Your task to perform on an android device: empty trash in google photos Image 0: 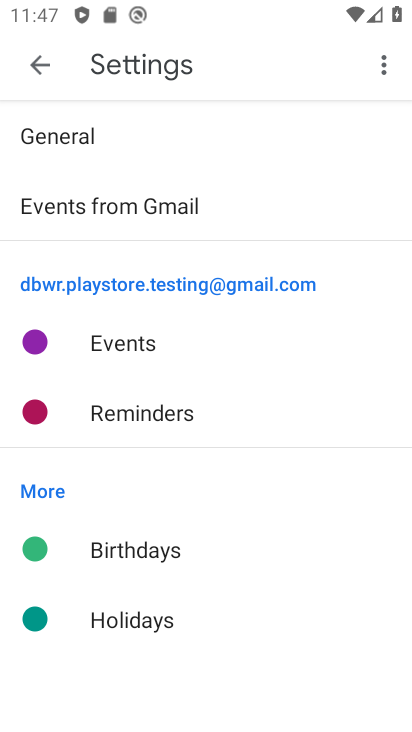
Step 0: press home button
Your task to perform on an android device: empty trash in google photos Image 1: 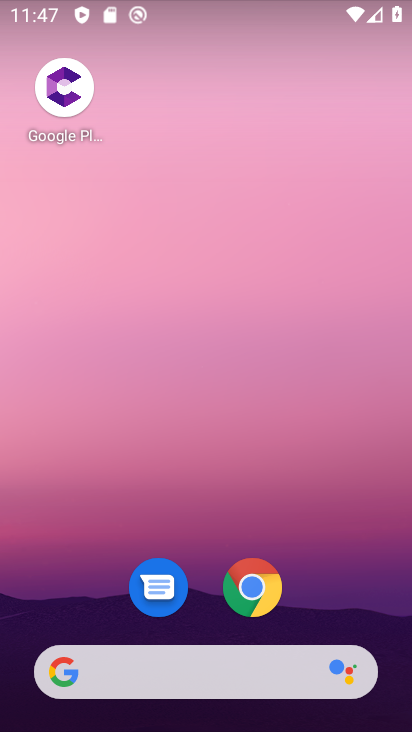
Step 1: drag from (104, 730) to (136, 32)
Your task to perform on an android device: empty trash in google photos Image 2: 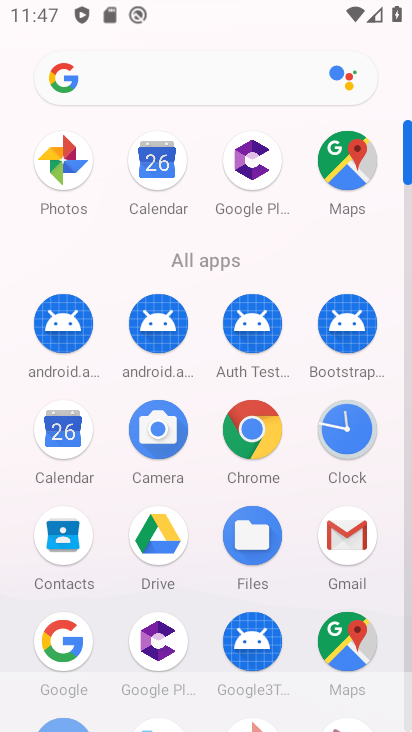
Step 2: click (56, 162)
Your task to perform on an android device: empty trash in google photos Image 3: 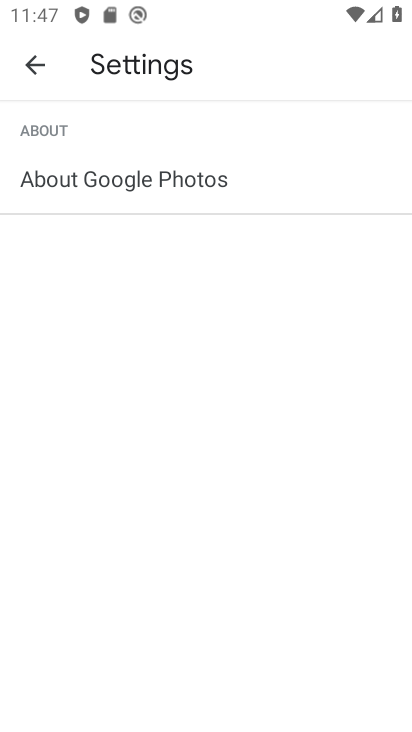
Step 3: click (30, 67)
Your task to perform on an android device: empty trash in google photos Image 4: 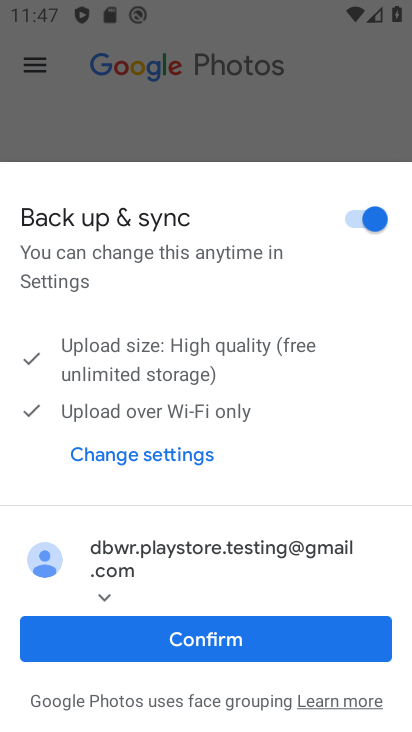
Step 4: click (226, 646)
Your task to perform on an android device: empty trash in google photos Image 5: 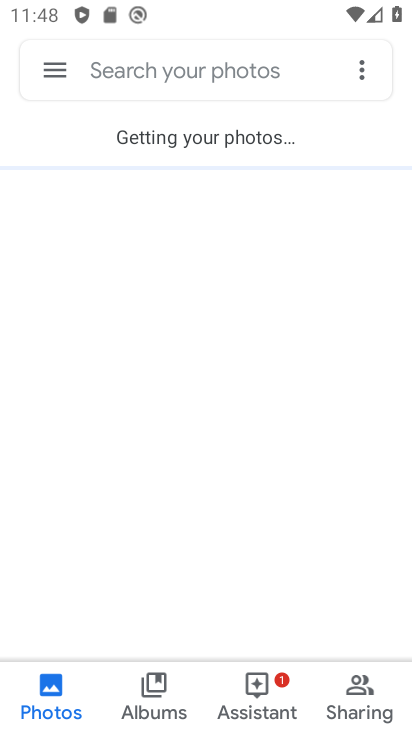
Step 5: click (59, 64)
Your task to perform on an android device: empty trash in google photos Image 6: 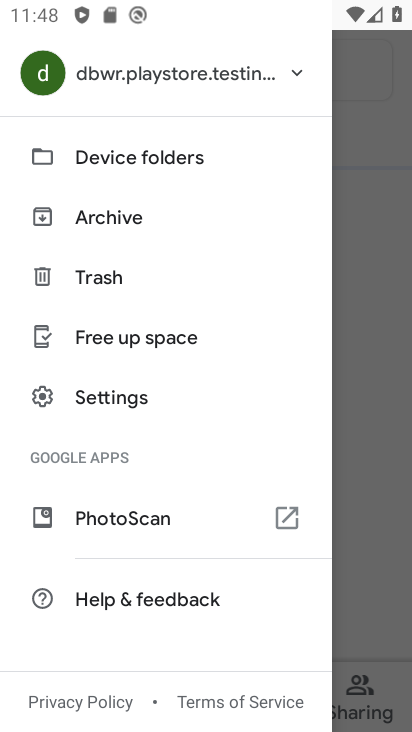
Step 6: click (117, 273)
Your task to perform on an android device: empty trash in google photos Image 7: 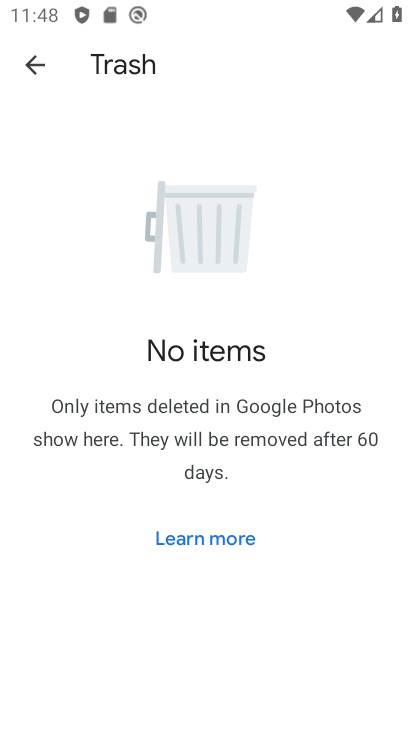
Step 7: task complete